Your task to perform on an android device: When is my next appointment? Image 0: 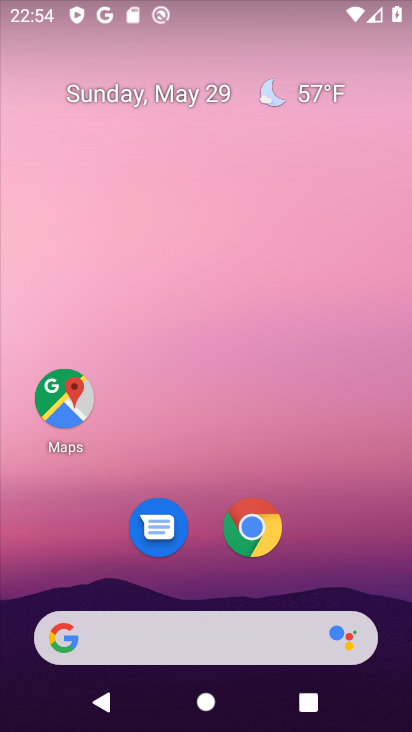
Step 0: drag from (344, 565) to (246, 50)
Your task to perform on an android device: When is my next appointment? Image 1: 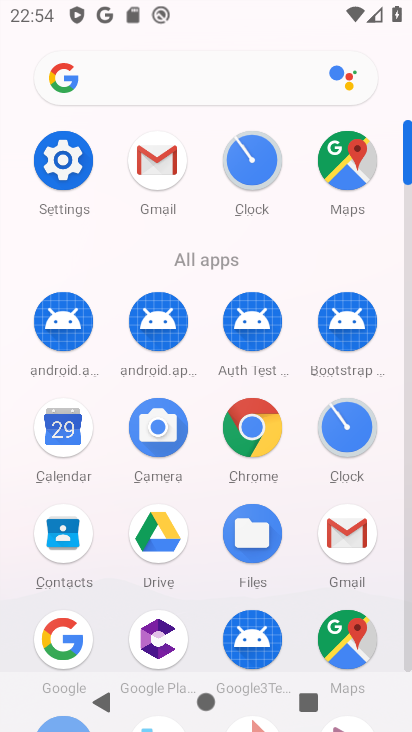
Step 1: click (69, 434)
Your task to perform on an android device: When is my next appointment? Image 2: 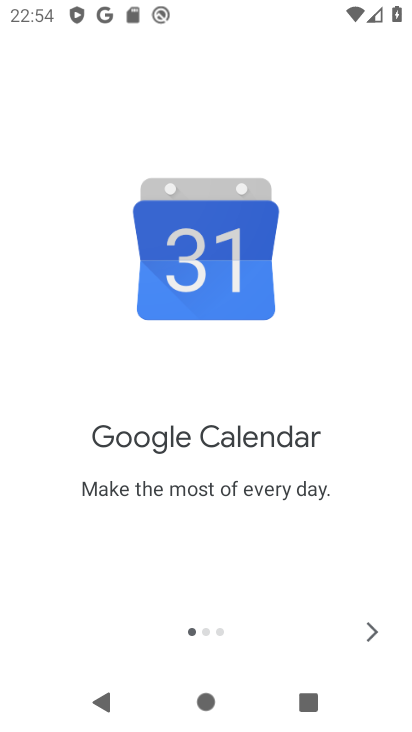
Step 2: click (374, 634)
Your task to perform on an android device: When is my next appointment? Image 3: 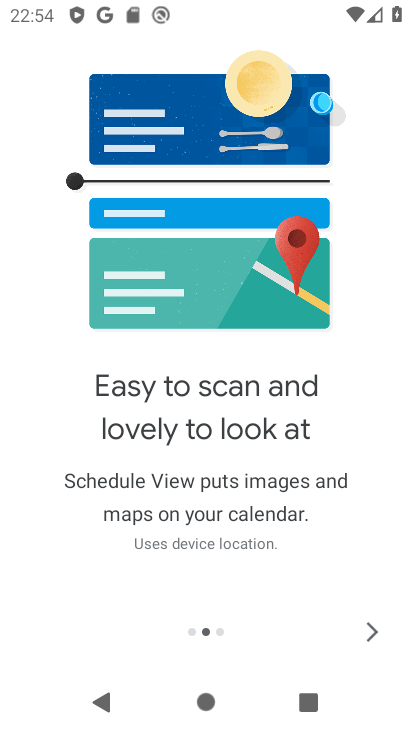
Step 3: click (374, 634)
Your task to perform on an android device: When is my next appointment? Image 4: 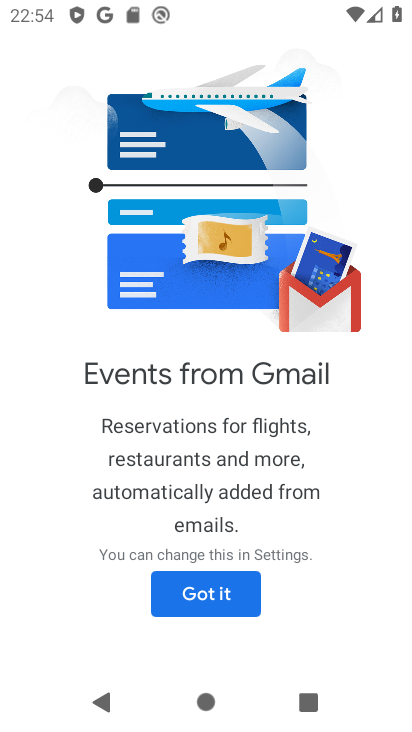
Step 4: click (229, 595)
Your task to perform on an android device: When is my next appointment? Image 5: 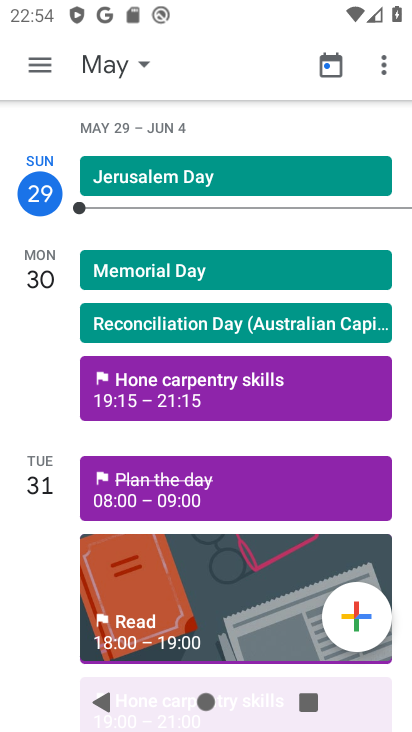
Step 5: click (148, 63)
Your task to perform on an android device: When is my next appointment? Image 6: 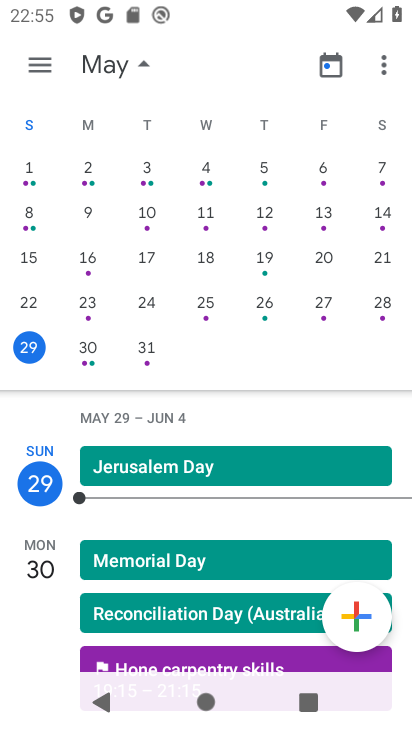
Step 6: click (100, 356)
Your task to perform on an android device: When is my next appointment? Image 7: 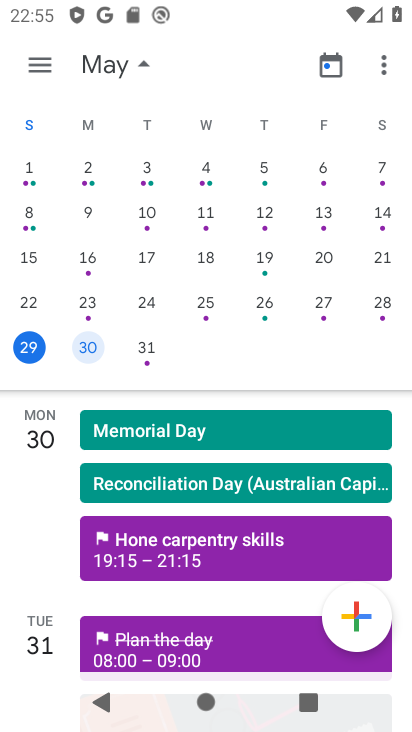
Step 7: click (44, 60)
Your task to perform on an android device: When is my next appointment? Image 8: 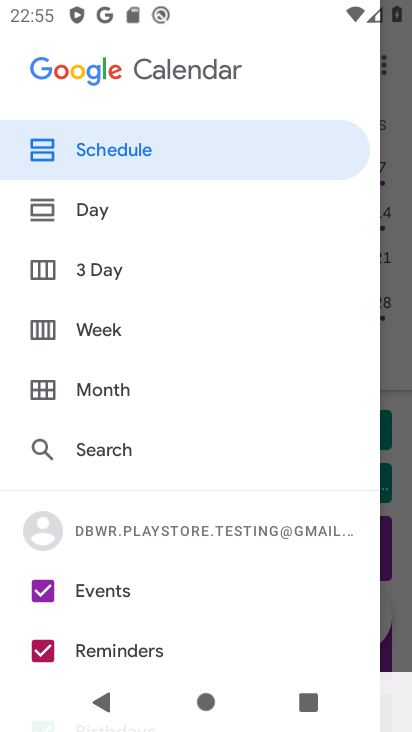
Step 8: click (140, 157)
Your task to perform on an android device: When is my next appointment? Image 9: 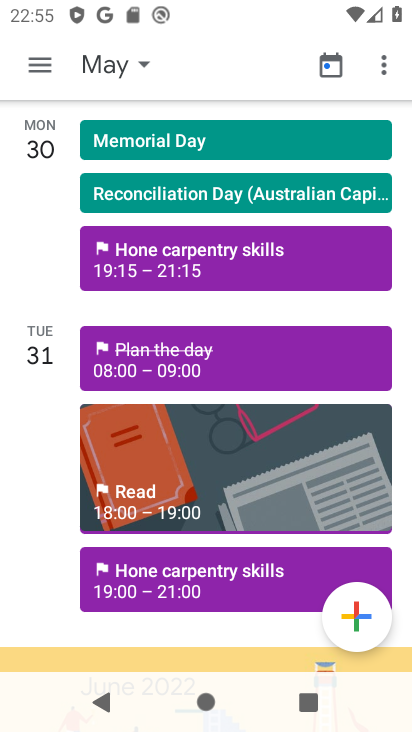
Step 9: task complete